Your task to perform on an android device: turn off improve location accuracy Image 0: 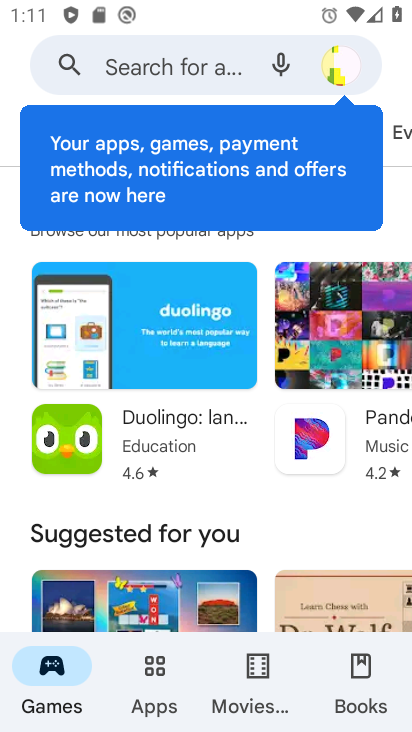
Step 0: press home button
Your task to perform on an android device: turn off improve location accuracy Image 1: 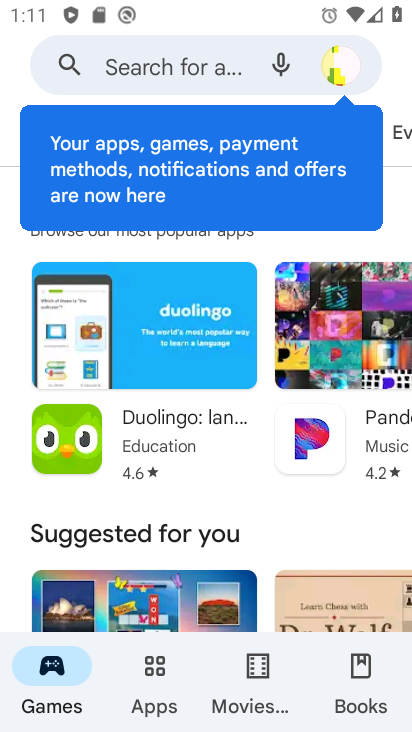
Step 1: press home button
Your task to perform on an android device: turn off improve location accuracy Image 2: 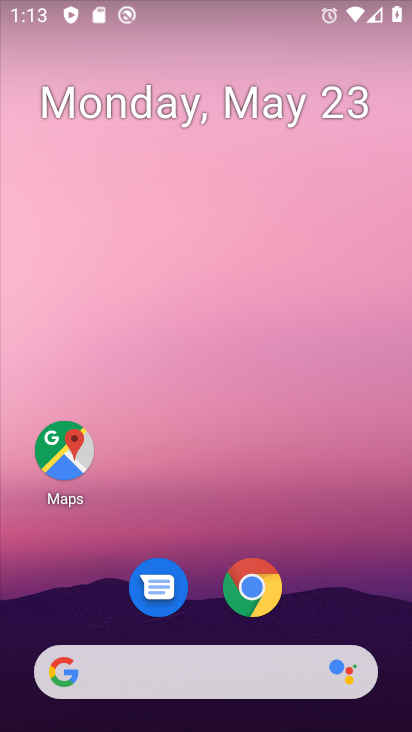
Step 2: drag from (375, 608) to (0, 61)
Your task to perform on an android device: turn off improve location accuracy Image 3: 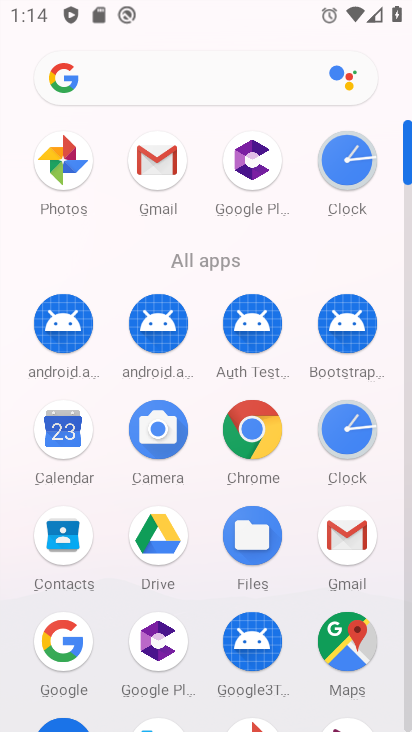
Step 3: click (409, 611)
Your task to perform on an android device: turn off improve location accuracy Image 4: 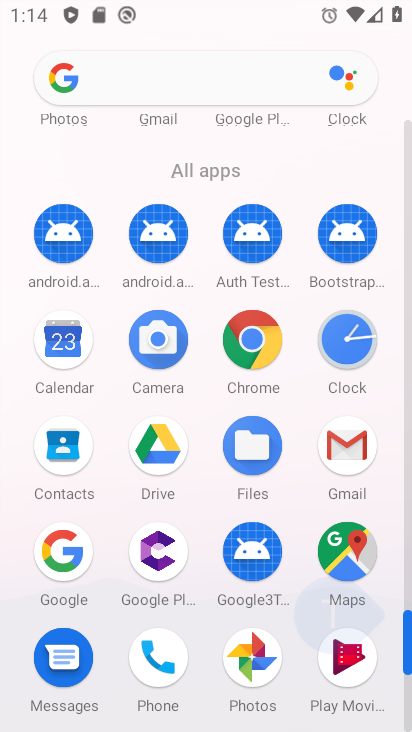
Step 4: click (409, 611)
Your task to perform on an android device: turn off improve location accuracy Image 5: 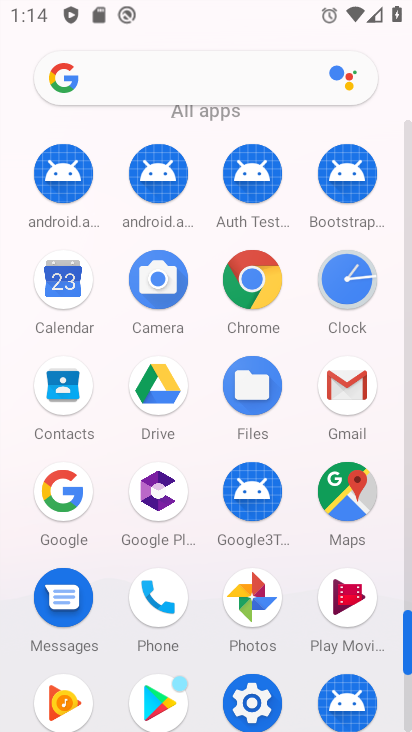
Step 5: click (257, 690)
Your task to perform on an android device: turn off improve location accuracy Image 6: 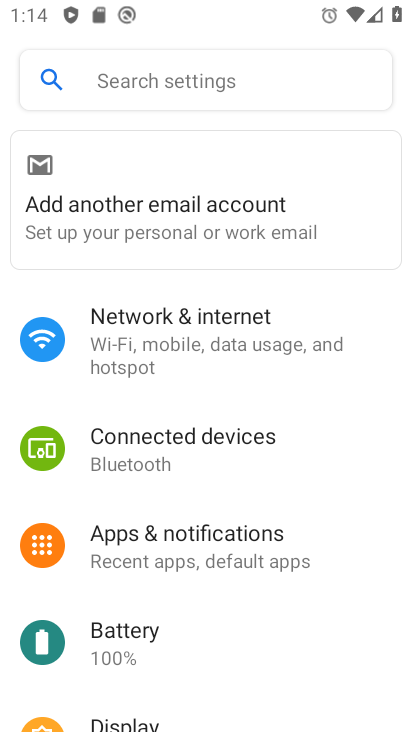
Step 6: drag from (184, 628) to (129, 439)
Your task to perform on an android device: turn off improve location accuracy Image 7: 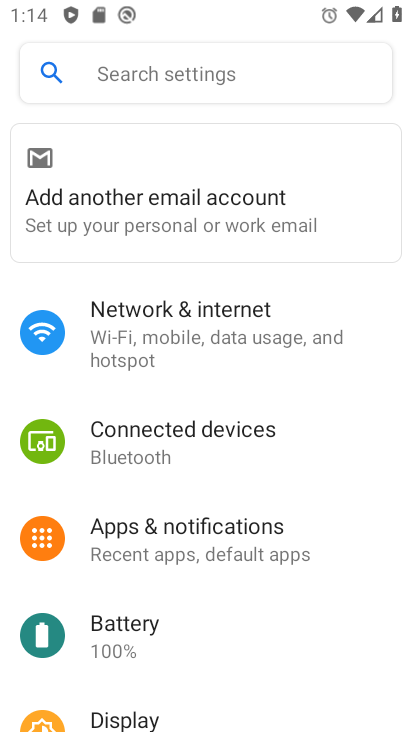
Step 7: click (227, 520)
Your task to perform on an android device: turn off improve location accuracy Image 8: 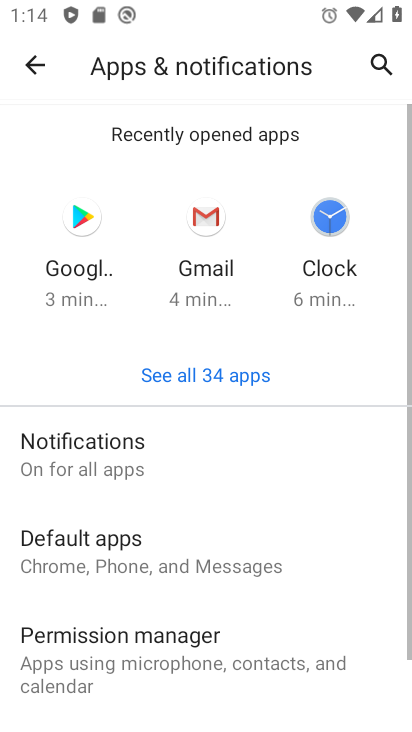
Step 8: task complete